Your task to perform on an android device: change the clock display to show seconds Image 0: 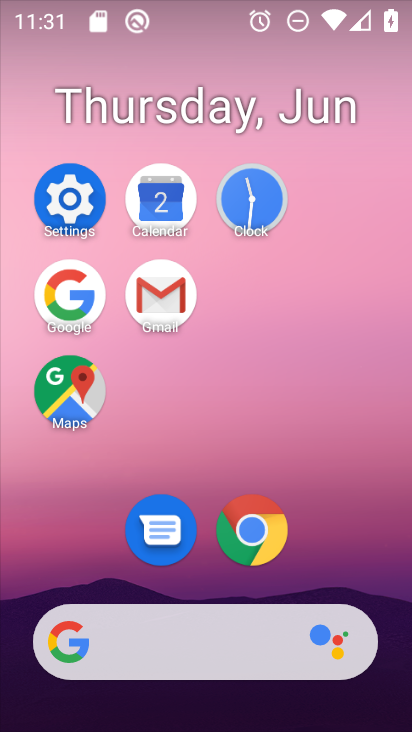
Step 0: click (257, 190)
Your task to perform on an android device: change the clock display to show seconds Image 1: 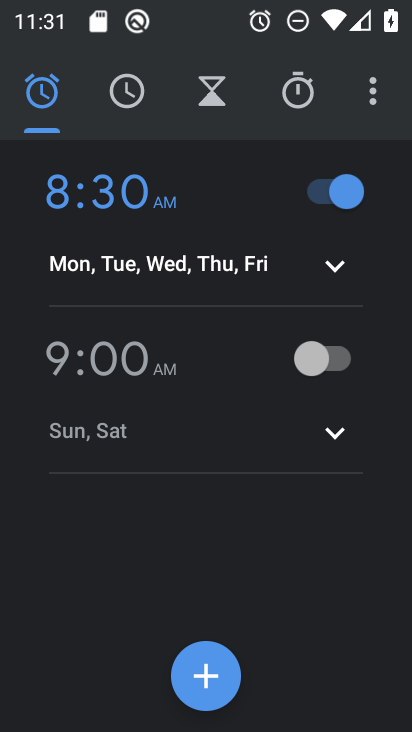
Step 1: click (379, 80)
Your task to perform on an android device: change the clock display to show seconds Image 2: 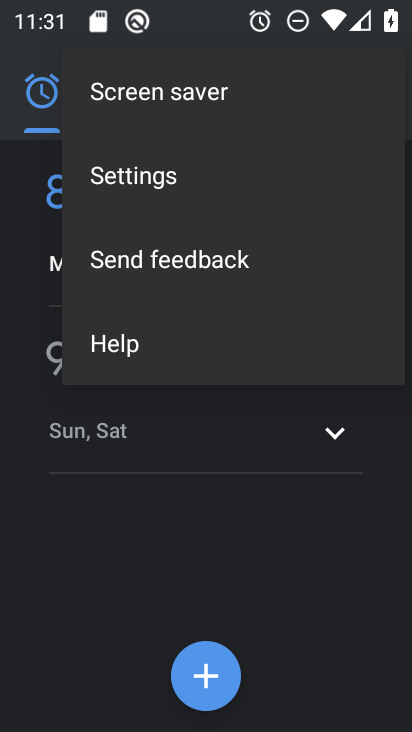
Step 2: click (263, 189)
Your task to perform on an android device: change the clock display to show seconds Image 3: 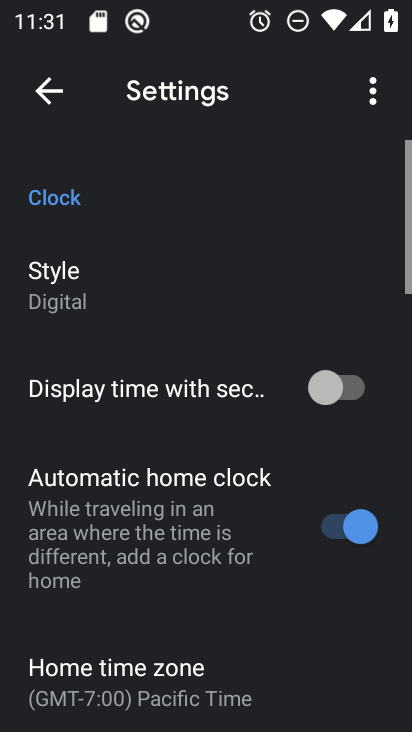
Step 3: click (256, 399)
Your task to perform on an android device: change the clock display to show seconds Image 4: 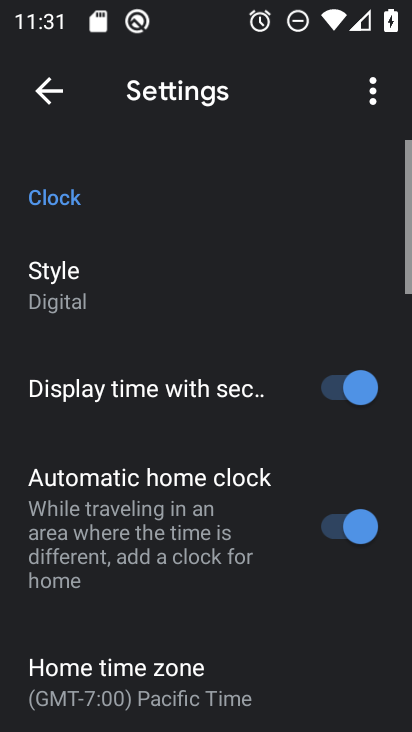
Step 4: task complete